Your task to perform on an android device: Open eBay Image 0: 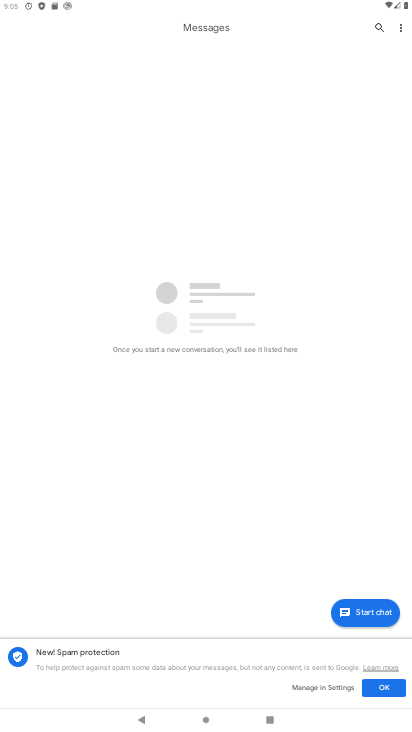
Step 0: press home button
Your task to perform on an android device: Open eBay Image 1: 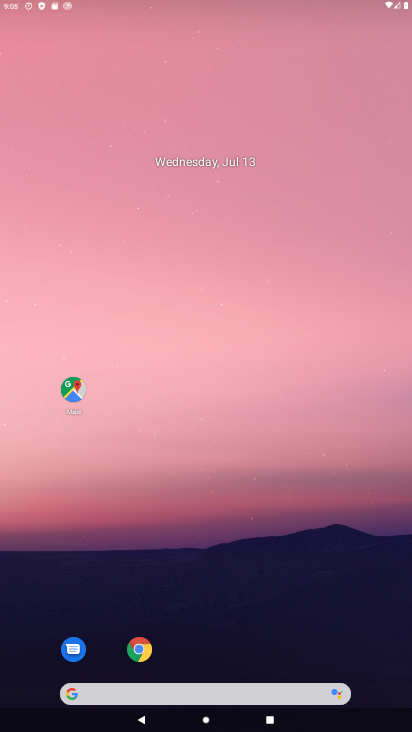
Step 1: drag from (275, 681) to (200, 90)
Your task to perform on an android device: Open eBay Image 2: 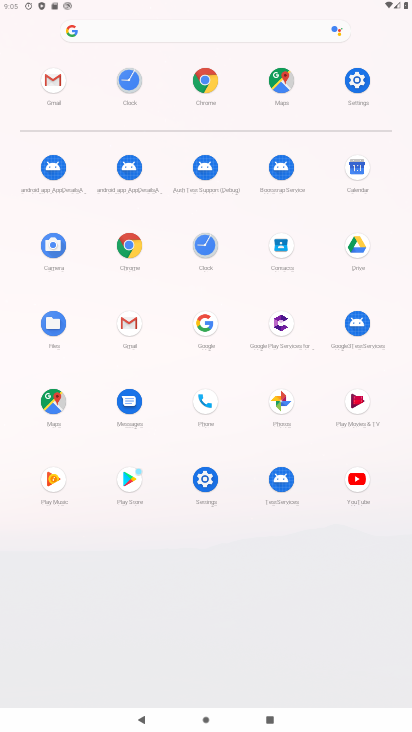
Step 2: click (130, 244)
Your task to perform on an android device: Open eBay Image 3: 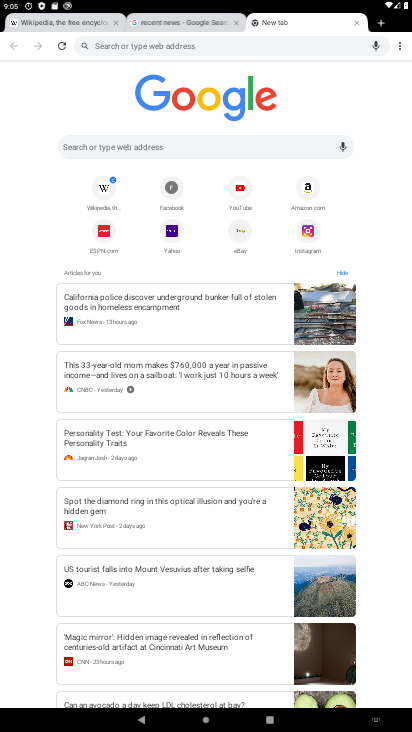
Step 3: click (240, 226)
Your task to perform on an android device: Open eBay Image 4: 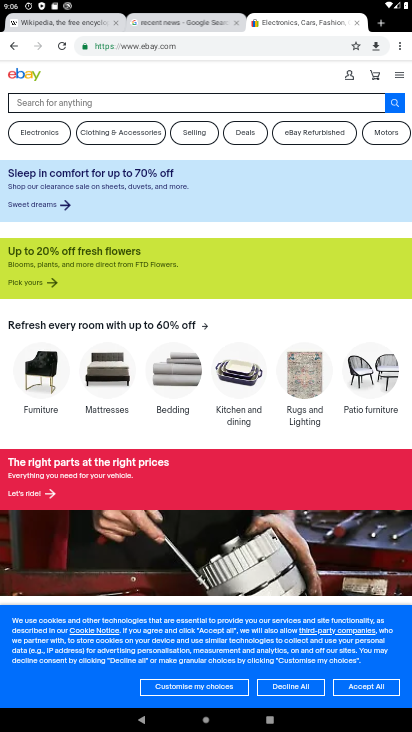
Step 4: task complete